Your task to perform on an android device: Open Yahoo.com Image 0: 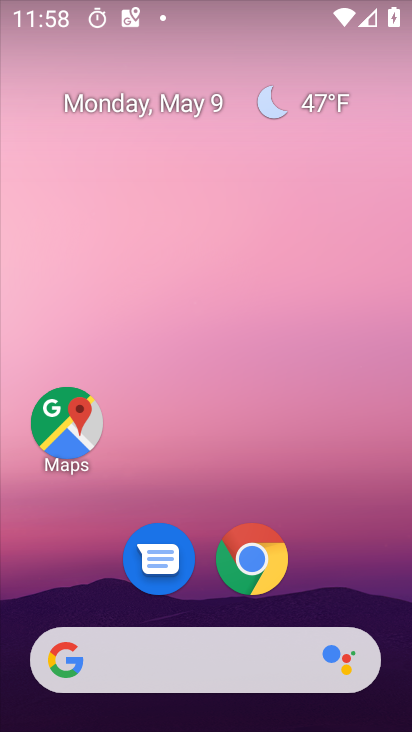
Step 0: drag from (349, 578) to (295, 100)
Your task to perform on an android device: Open Yahoo.com Image 1: 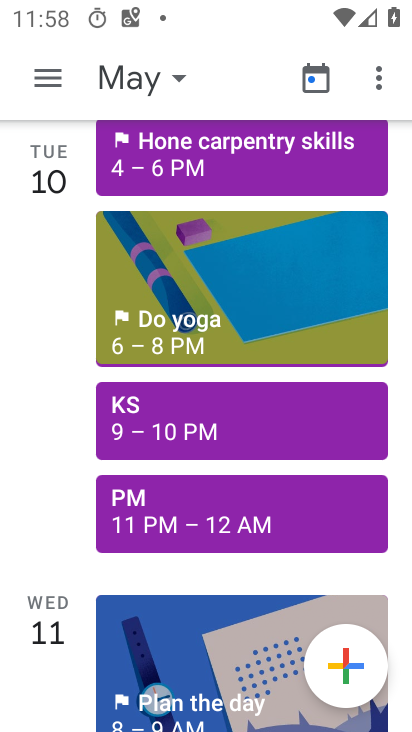
Step 1: press home button
Your task to perform on an android device: Open Yahoo.com Image 2: 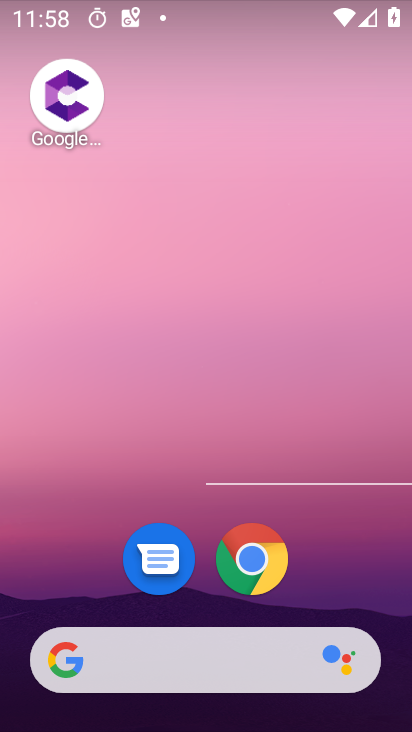
Step 2: click (223, 569)
Your task to perform on an android device: Open Yahoo.com Image 3: 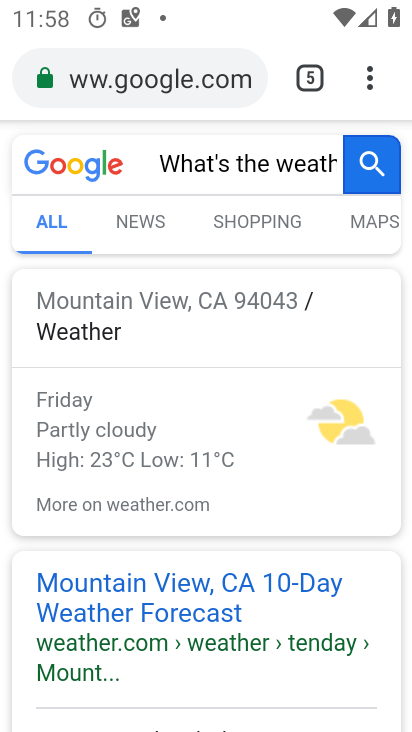
Step 3: click (203, 84)
Your task to perform on an android device: Open Yahoo.com Image 4: 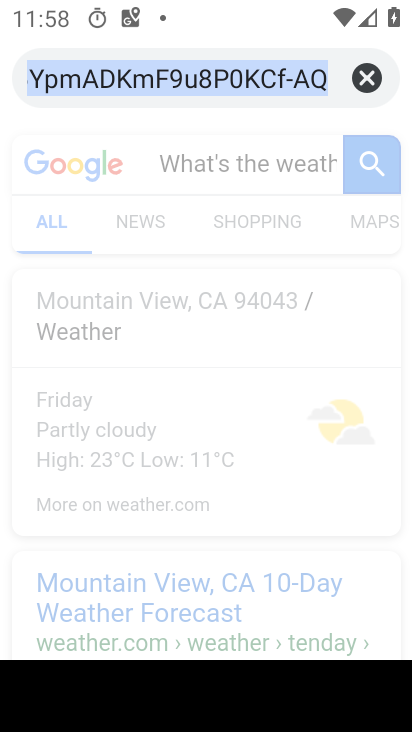
Step 4: click (361, 86)
Your task to perform on an android device: Open Yahoo.com Image 5: 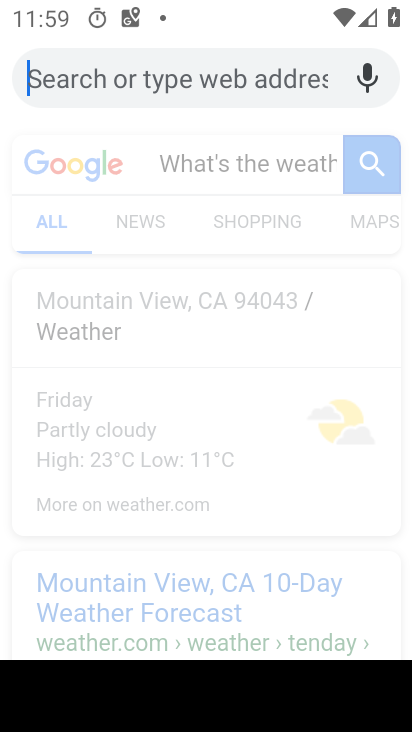
Step 5: type "Yahoo.com"
Your task to perform on an android device: Open Yahoo.com Image 6: 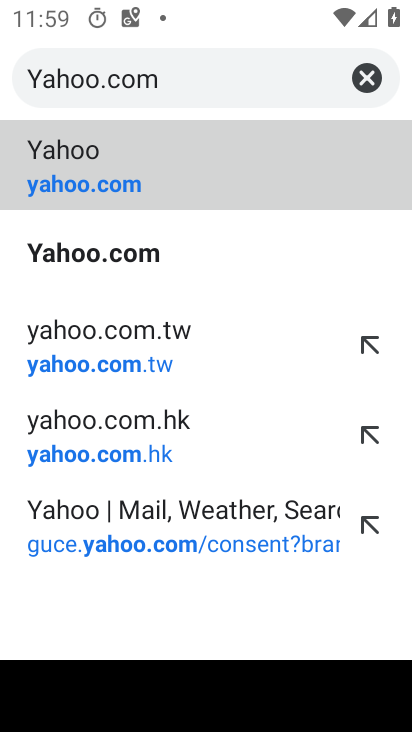
Step 6: click (87, 187)
Your task to perform on an android device: Open Yahoo.com Image 7: 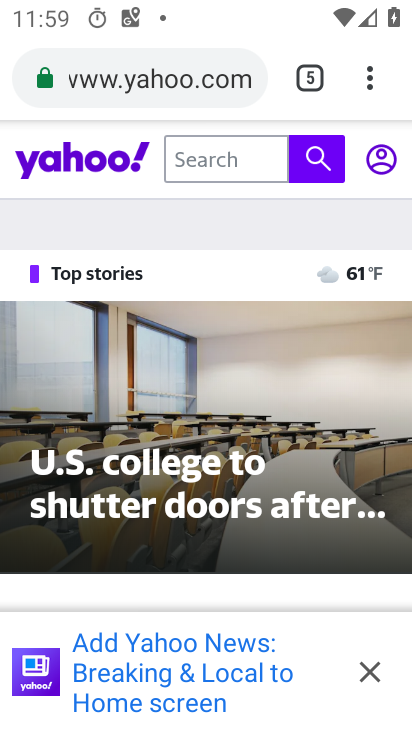
Step 7: task complete